Your task to perform on an android device: empty trash in the gmail app Image 0: 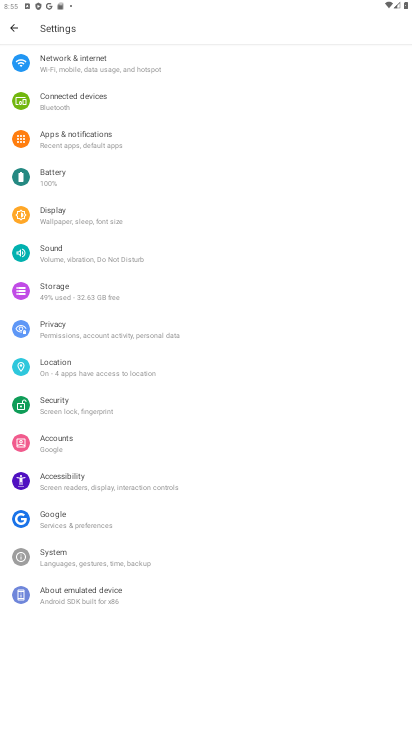
Step 0: press home button
Your task to perform on an android device: empty trash in the gmail app Image 1: 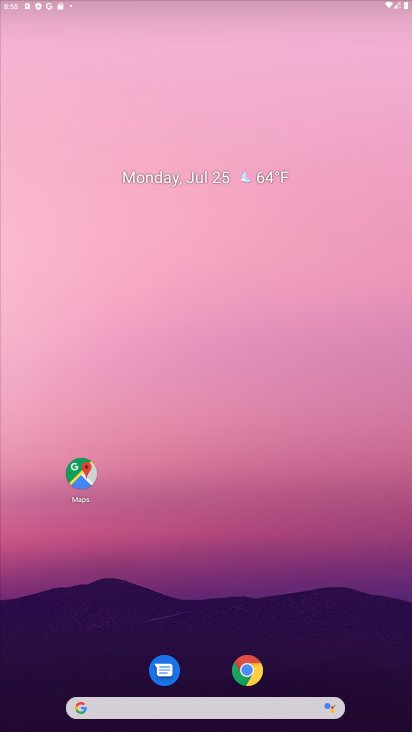
Step 1: drag from (360, 649) to (93, 0)
Your task to perform on an android device: empty trash in the gmail app Image 2: 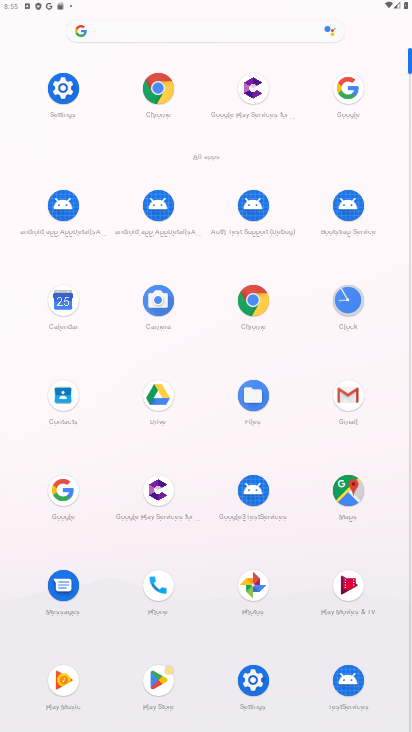
Step 2: click (349, 398)
Your task to perform on an android device: empty trash in the gmail app Image 3: 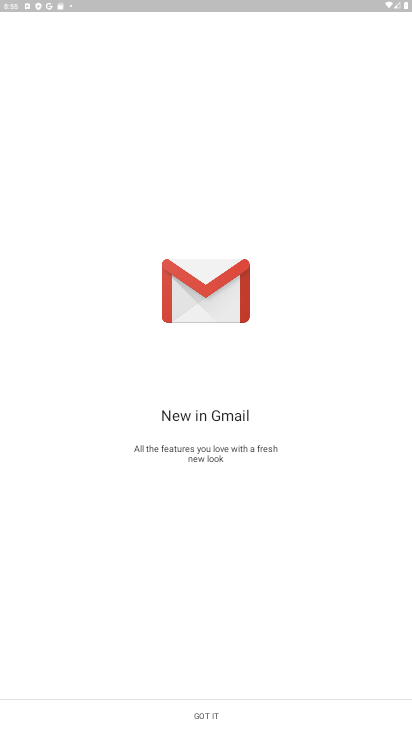
Step 3: click (176, 716)
Your task to perform on an android device: empty trash in the gmail app Image 4: 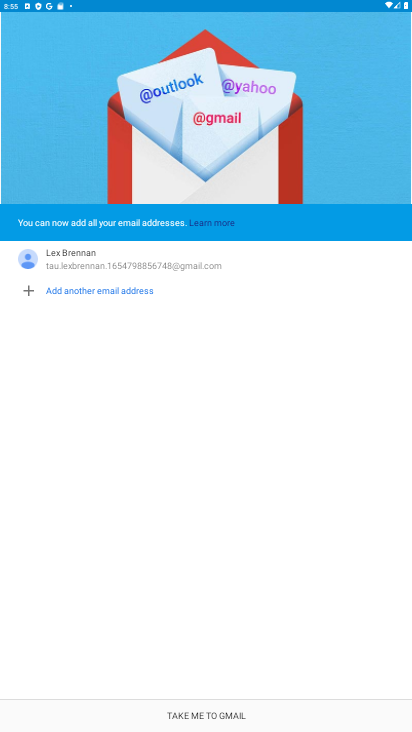
Step 4: click (176, 712)
Your task to perform on an android device: empty trash in the gmail app Image 5: 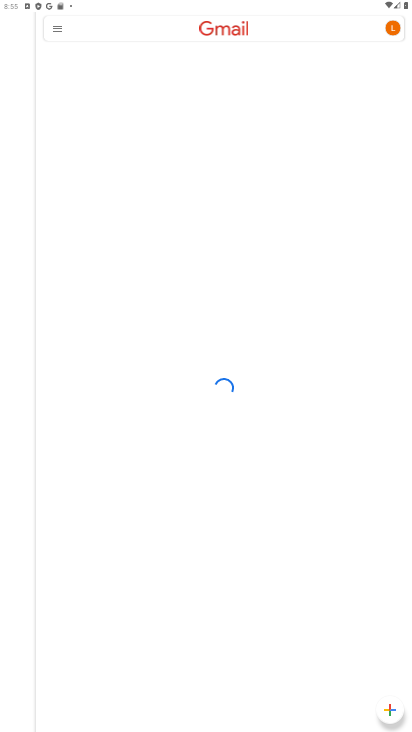
Step 5: click (56, 30)
Your task to perform on an android device: empty trash in the gmail app Image 6: 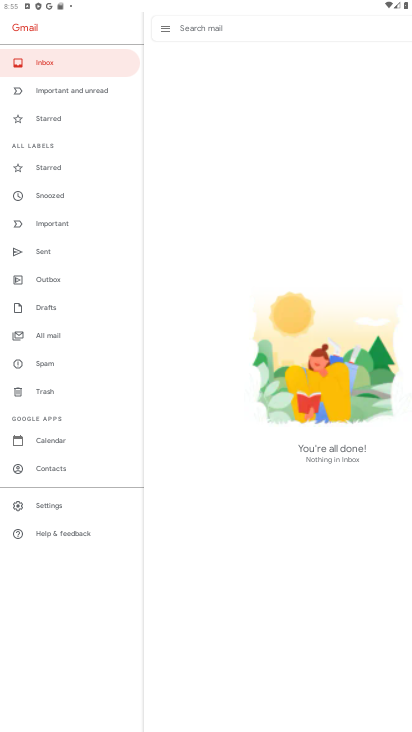
Step 6: click (47, 393)
Your task to perform on an android device: empty trash in the gmail app Image 7: 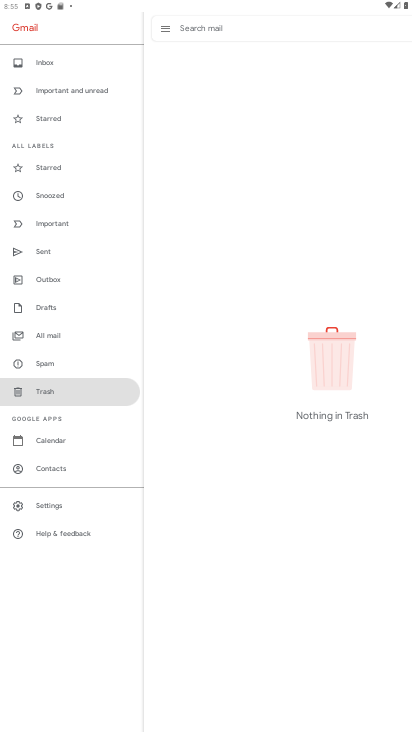
Step 7: task complete